Your task to perform on an android device: What's on my calendar today? Image 0: 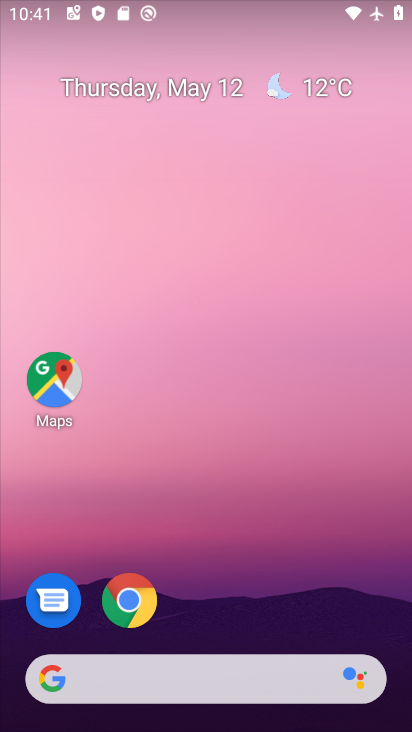
Step 0: drag from (320, 596) to (231, 233)
Your task to perform on an android device: What's on my calendar today? Image 1: 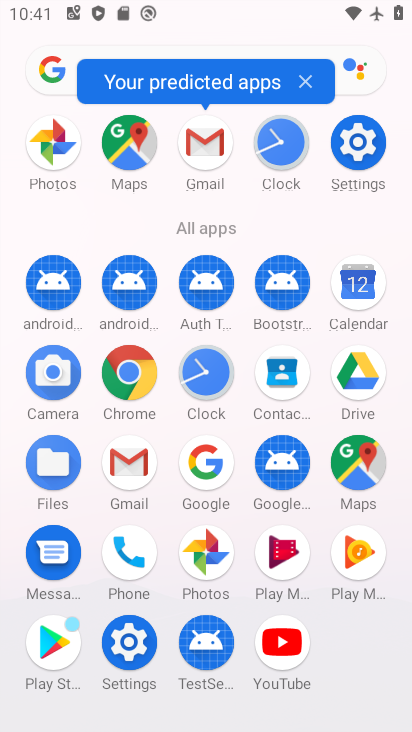
Step 1: click (359, 292)
Your task to perform on an android device: What's on my calendar today? Image 2: 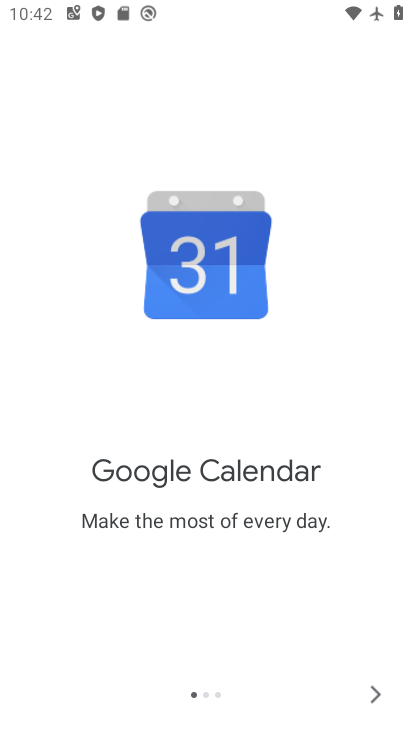
Step 2: click (372, 697)
Your task to perform on an android device: What's on my calendar today? Image 3: 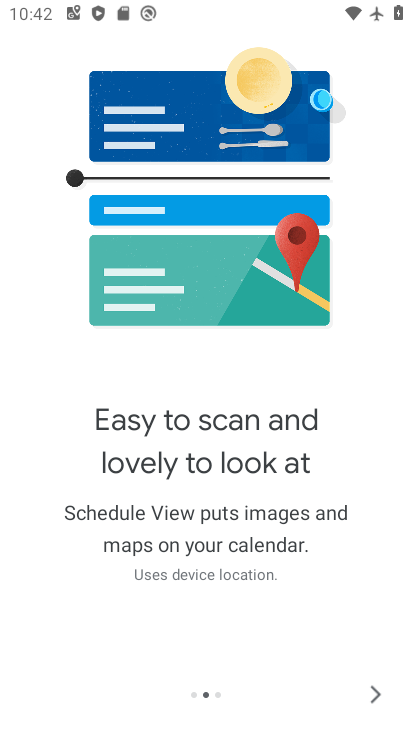
Step 3: click (372, 697)
Your task to perform on an android device: What's on my calendar today? Image 4: 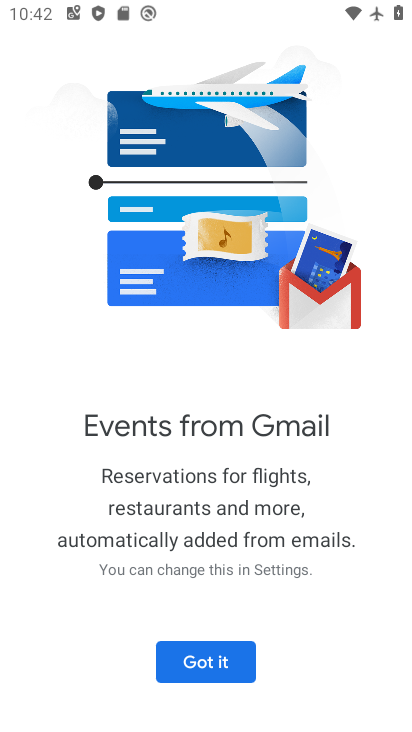
Step 4: click (215, 656)
Your task to perform on an android device: What's on my calendar today? Image 5: 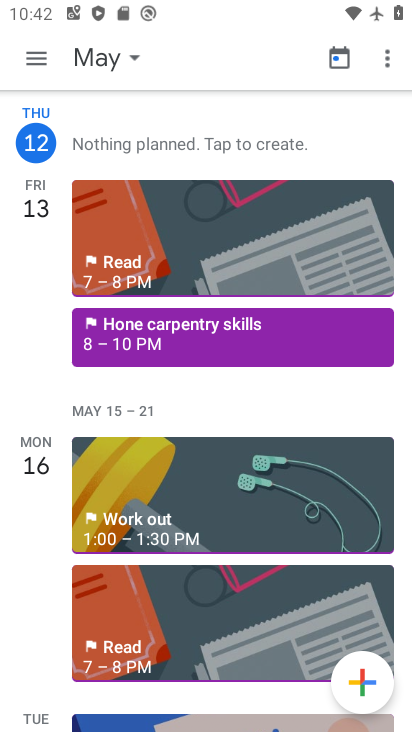
Step 5: click (38, 56)
Your task to perform on an android device: What's on my calendar today? Image 6: 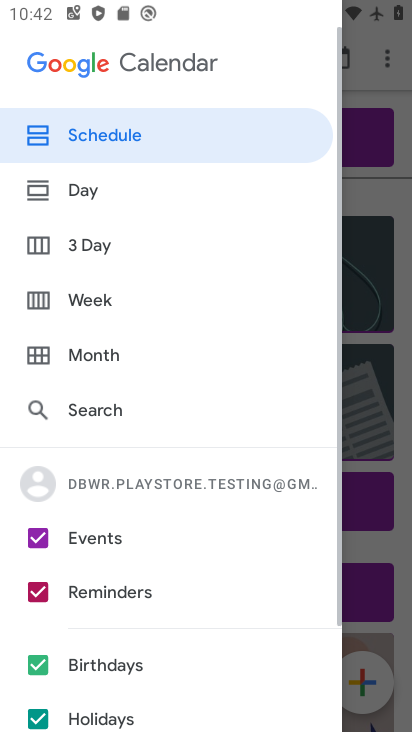
Step 6: click (96, 182)
Your task to perform on an android device: What's on my calendar today? Image 7: 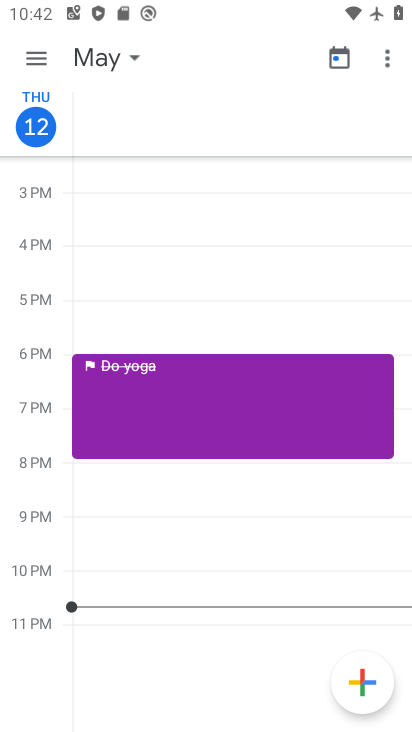
Step 7: task complete